Your task to perform on an android device: Go to display settings Image 0: 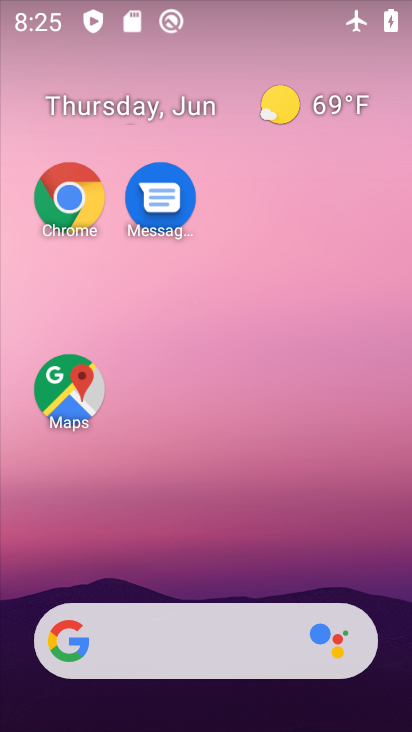
Step 0: drag from (234, 597) to (216, 38)
Your task to perform on an android device: Go to display settings Image 1: 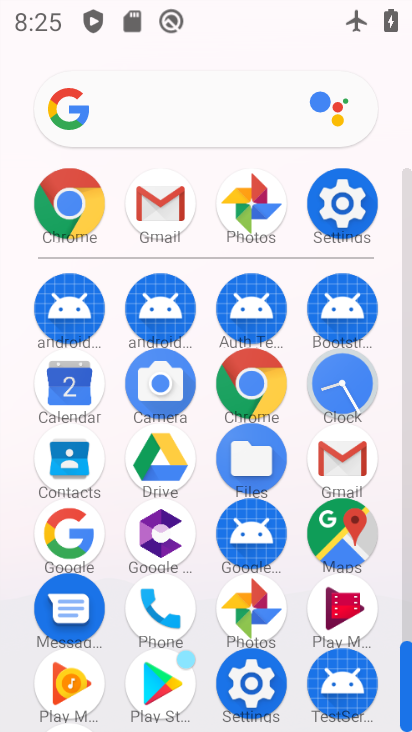
Step 1: click (343, 225)
Your task to perform on an android device: Go to display settings Image 2: 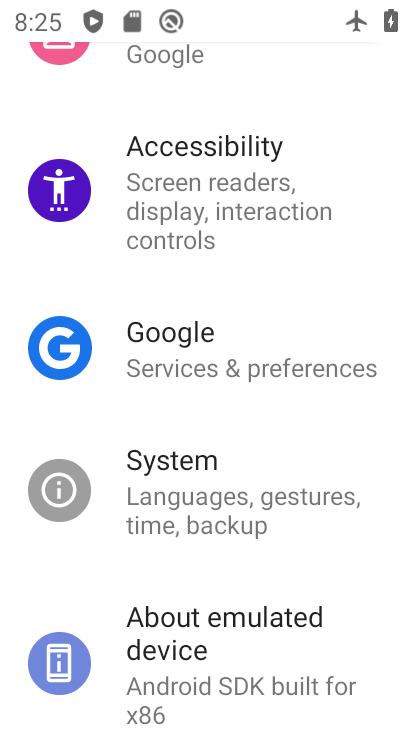
Step 2: drag from (339, 226) to (182, 633)
Your task to perform on an android device: Go to display settings Image 3: 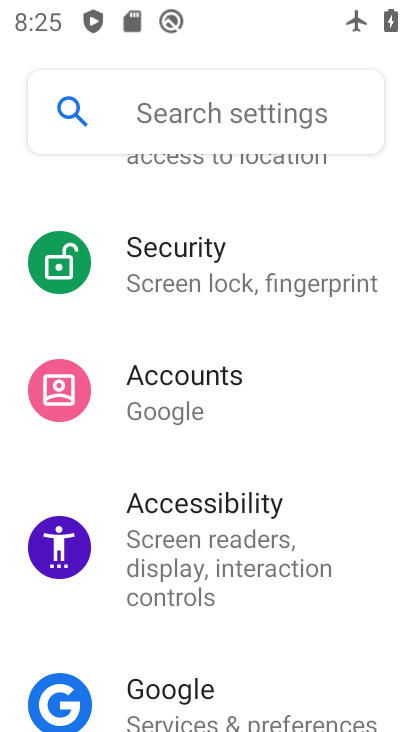
Step 3: drag from (149, 246) to (132, 651)
Your task to perform on an android device: Go to display settings Image 4: 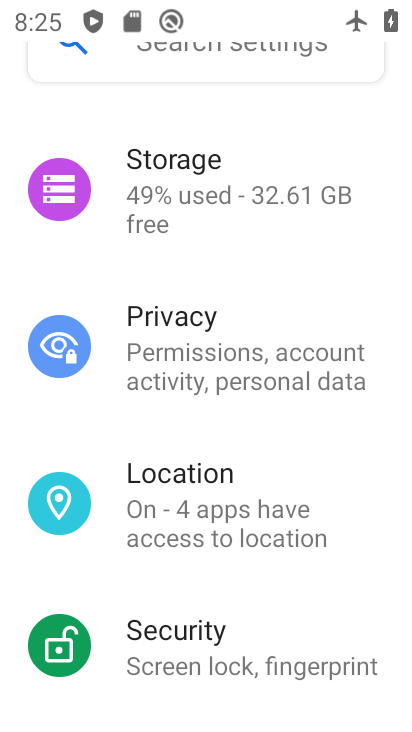
Step 4: drag from (167, 151) to (158, 693)
Your task to perform on an android device: Go to display settings Image 5: 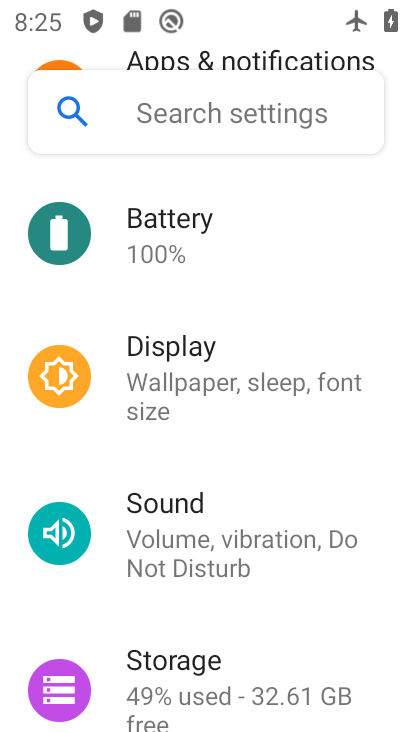
Step 5: click (199, 424)
Your task to perform on an android device: Go to display settings Image 6: 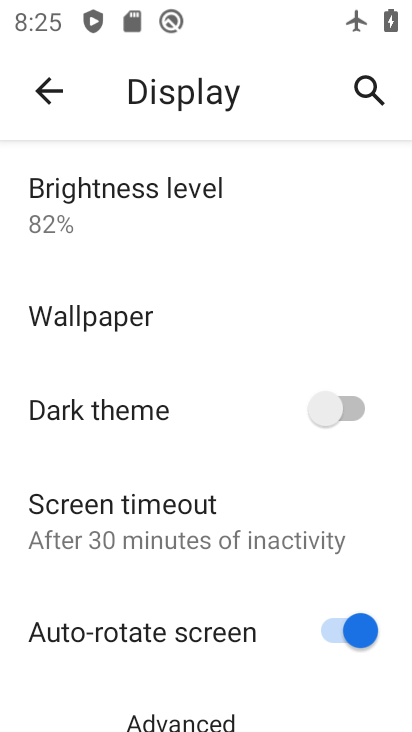
Step 6: task complete